Your task to perform on an android device: Open my contact list Image 0: 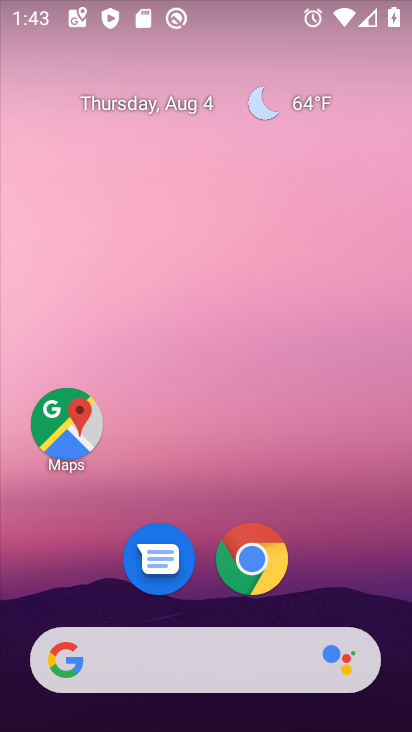
Step 0: drag from (195, 675) to (215, 143)
Your task to perform on an android device: Open my contact list Image 1: 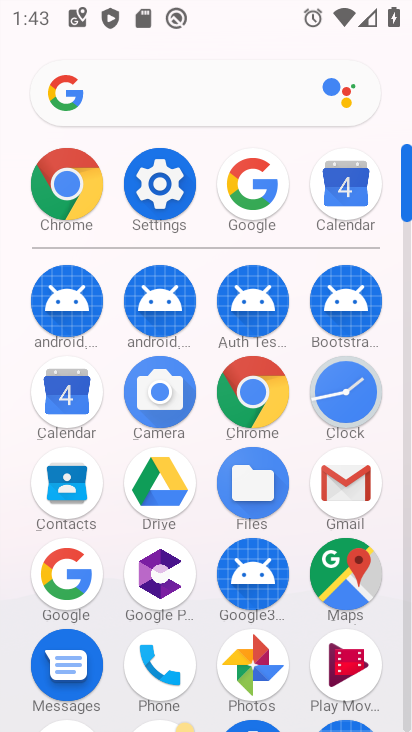
Step 1: click (68, 480)
Your task to perform on an android device: Open my contact list Image 2: 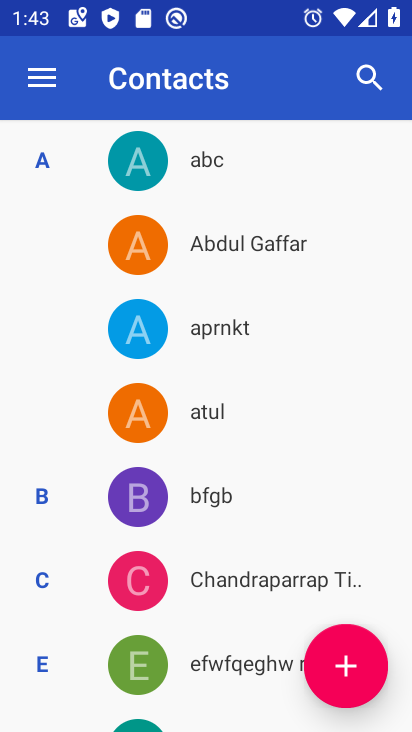
Step 2: click (344, 667)
Your task to perform on an android device: Open my contact list Image 3: 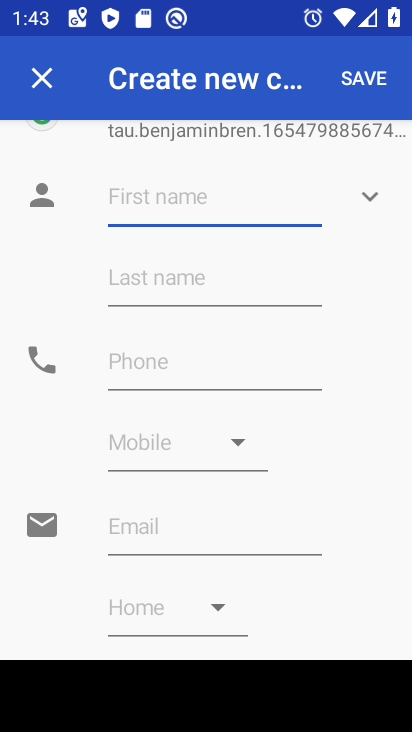
Step 3: click (185, 210)
Your task to perform on an android device: Open my contact list Image 4: 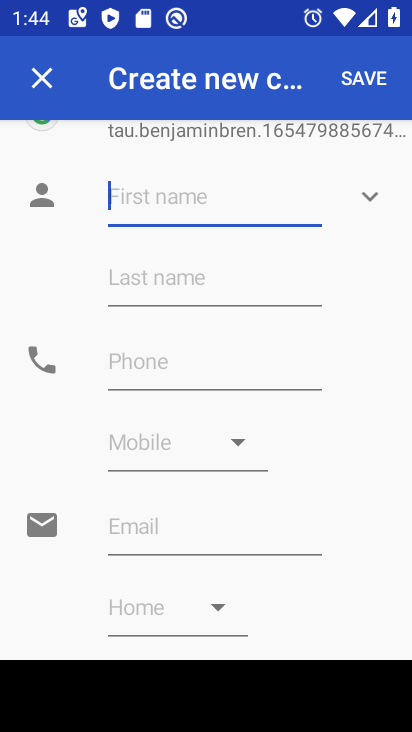
Step 4: type "Dimple"
Your task to perform on an android device: Open my contact list Image 5: 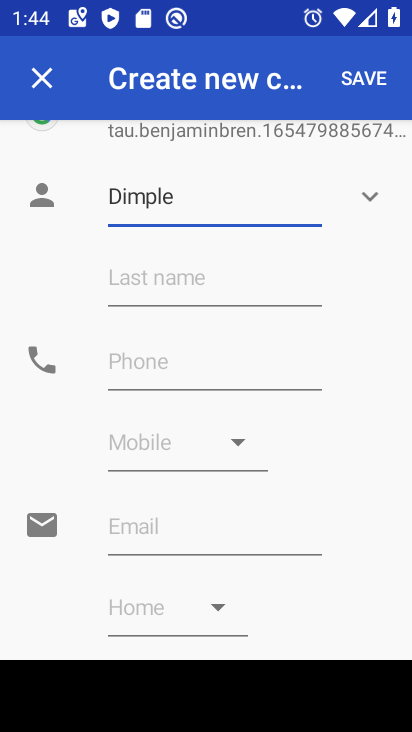
Step 5: click (207, 270)
Your task to perform on an android device: Open my contact list Image 6: 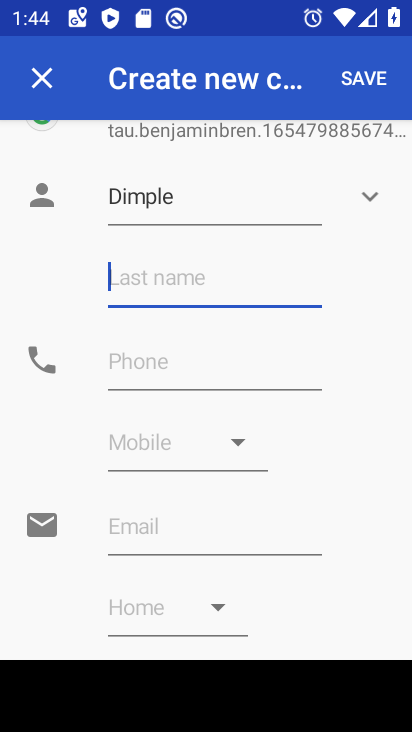
Step 6: type "Bhatt"
Your task to perform on an android device: Open my contact list Image 7: 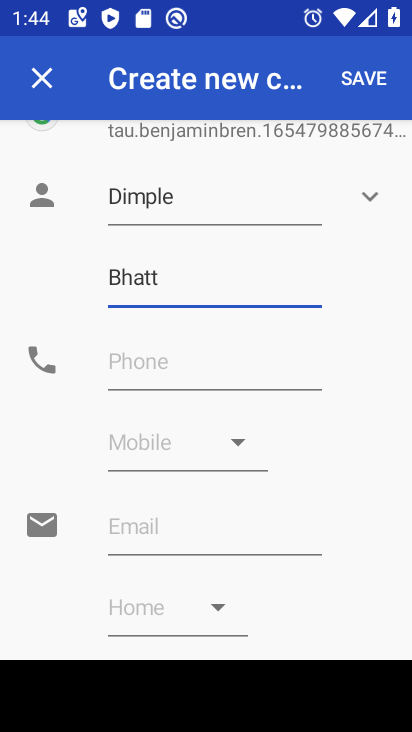
Step 7: click (156, 374)
Your task to perform on an android device: Open my contact list Image 8: 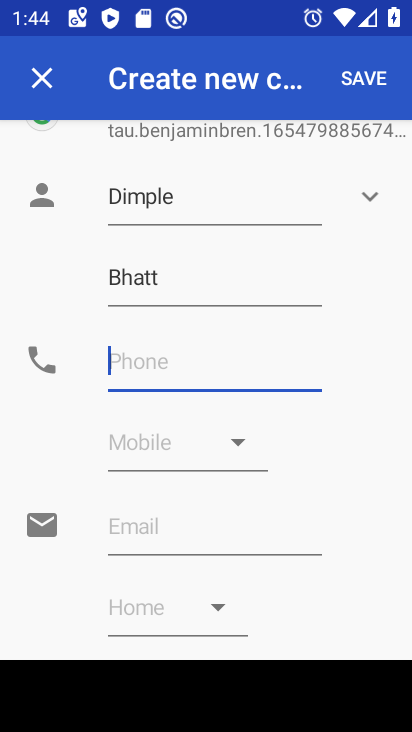
Step 8: type "0987654321"
Your task to perform on an android device: Open my contact list Image 9: 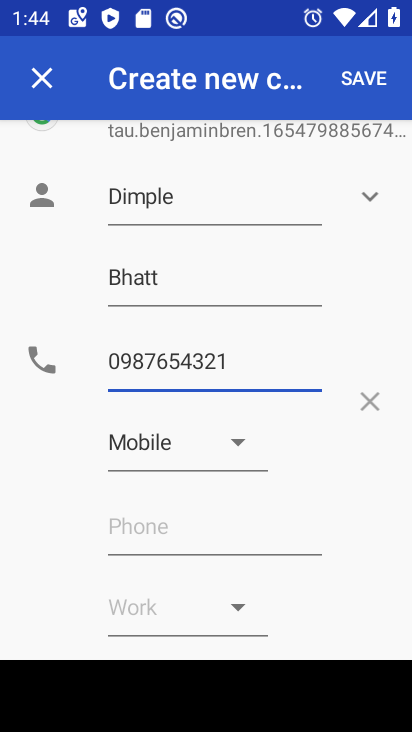
Step 9: click (368, 82)
Your task to perform on an android device: Open my contact list Image 10: 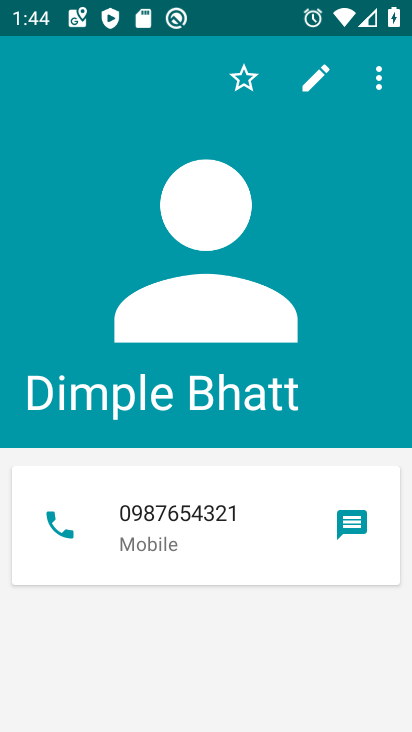
Step 10: task complete